Your task to perform on an android device: Open settings Image 0: 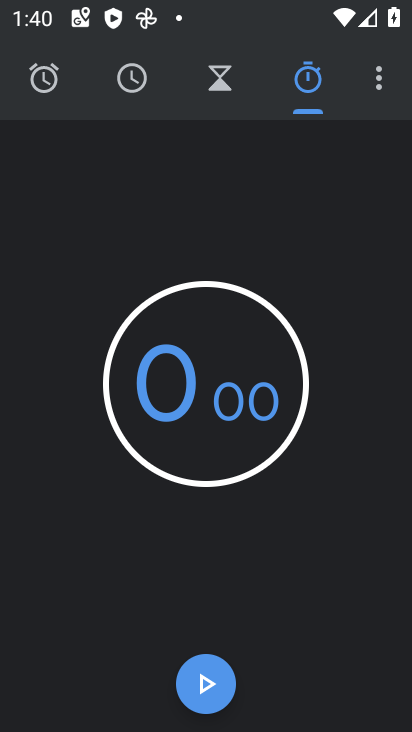
Step 0: press home button
Your task to perform on an android device: Open settings Image 1: 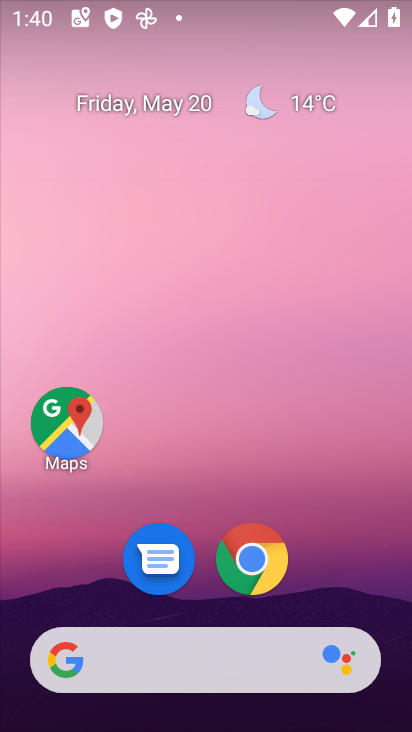
Step 1: drag from (365, 604) to (263, 167)
Your task to perform on an android device: Open settings Image 2: 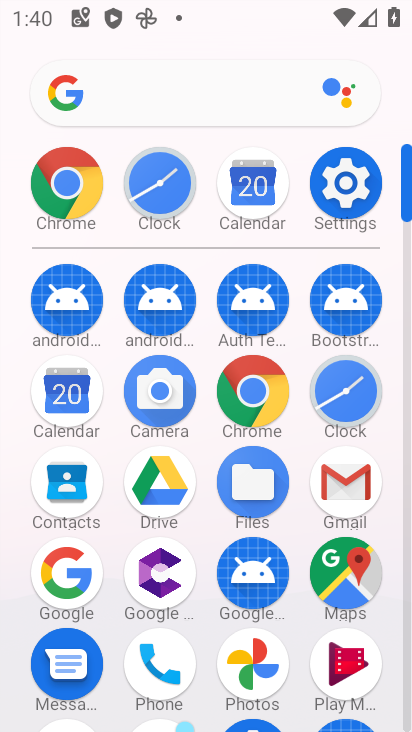
Step 2: click (320, 185)
Your task to perform on an android device: Open settings Image 3: 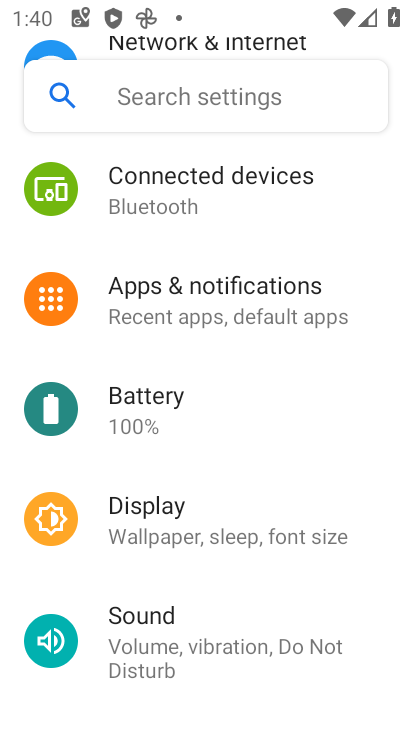
Step 3: task complete